Your task to perform on an android device: Open the phone app and click the voicemail tab. Image 0: 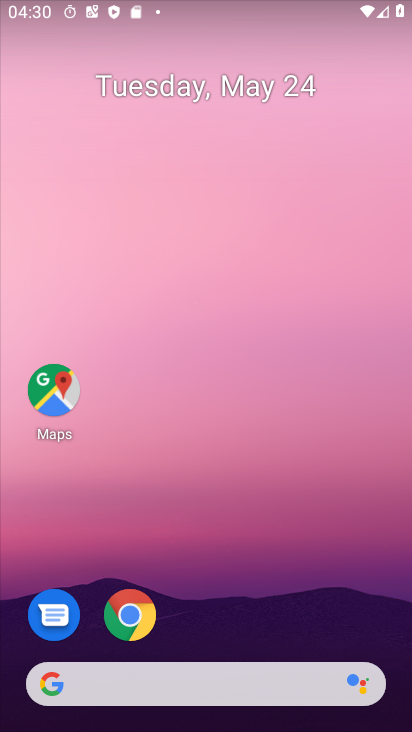
Step 0: drag from (237, 628) to (284, 100)
Your task to perform on an android device: Open the phone app and click the voicemail tab. Image 1: 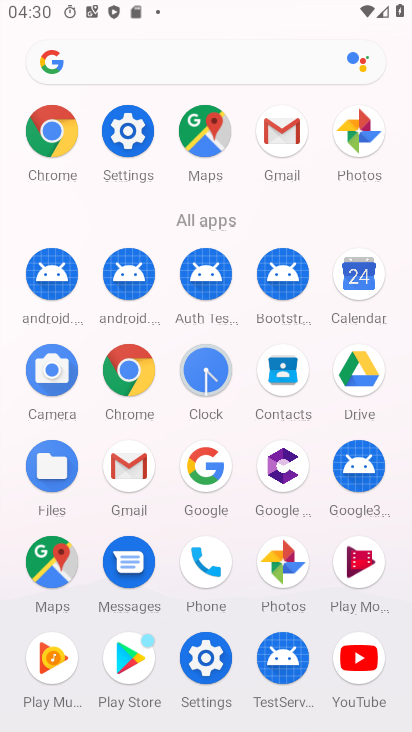
Step 1: click (199, 564)
Your task to perform on an android device: Open the phone app and click the voicemail tab. Image 2: 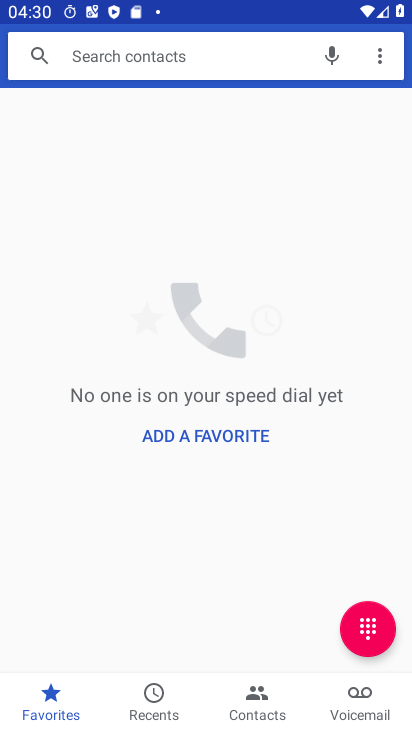
Step 2: click (356, 706)
Your task to perform on an android device: Open the phone app and click the voicemail tab. Image 3: 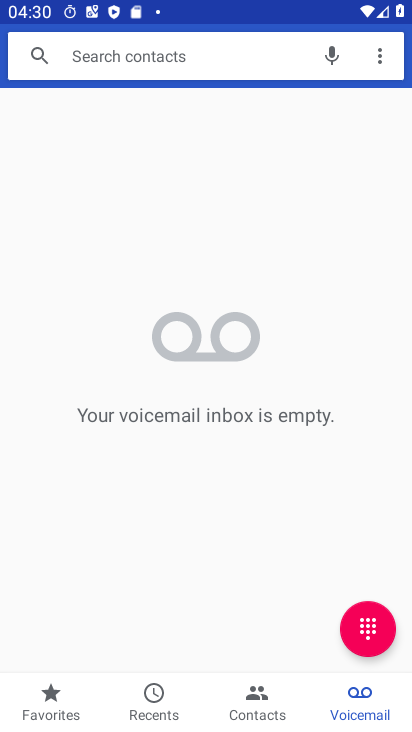
Step 3: task complete